Your task to perform on an android device: Go to accessibility settings Image 0: 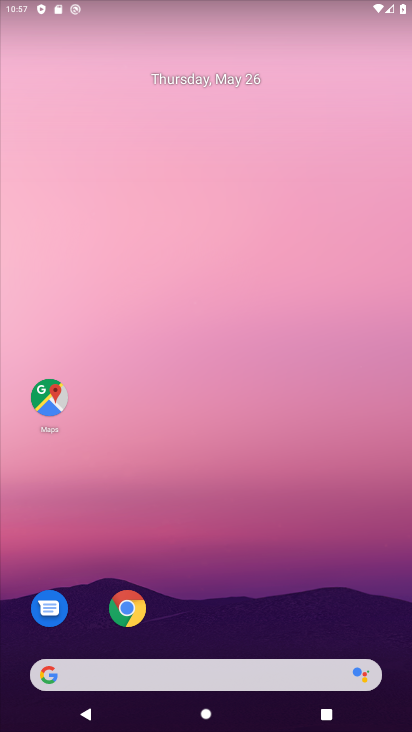
Step 0: drag from (245, 546) to (176, 183)
Your task to perform on an android device: Go to accessibility settings Image 1: 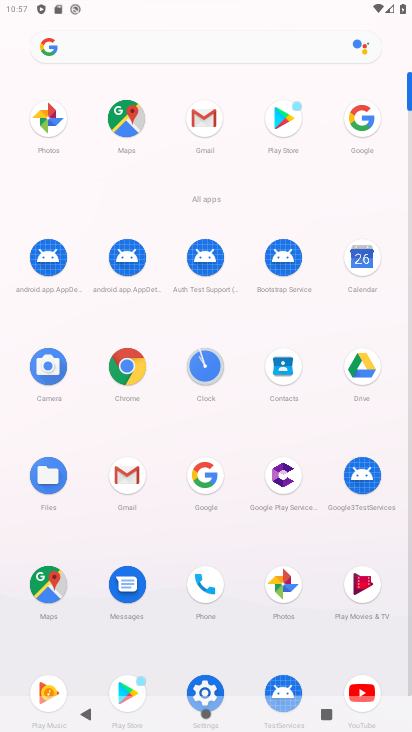
Step 1: click (205, 674)
Your task to perform on an android device: Go to accessibility settings Image 2: 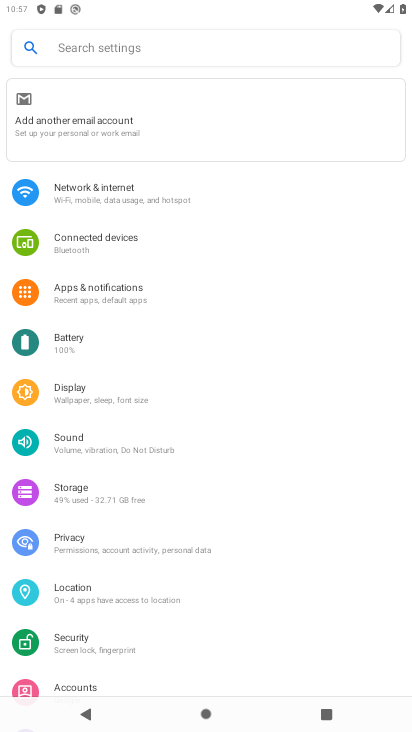
Step 2: drag from (201, 573) to (117, 169)
Your task to perform on an android device: Go to accessibility settings Image 3: 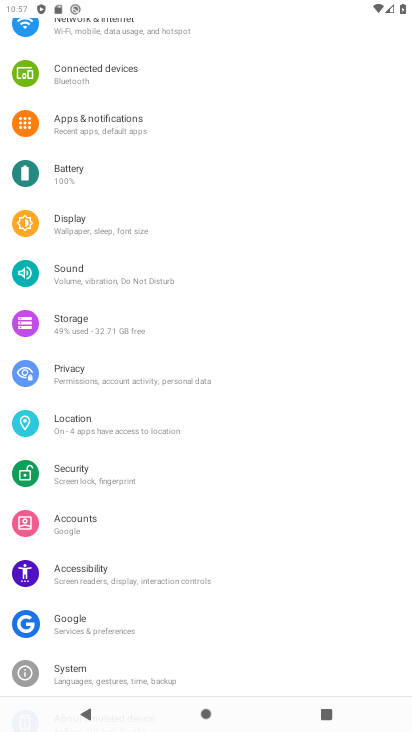
Step 3: click (72, 558)
Your task to perform on an android device: Go to accessibility settings Image 4: 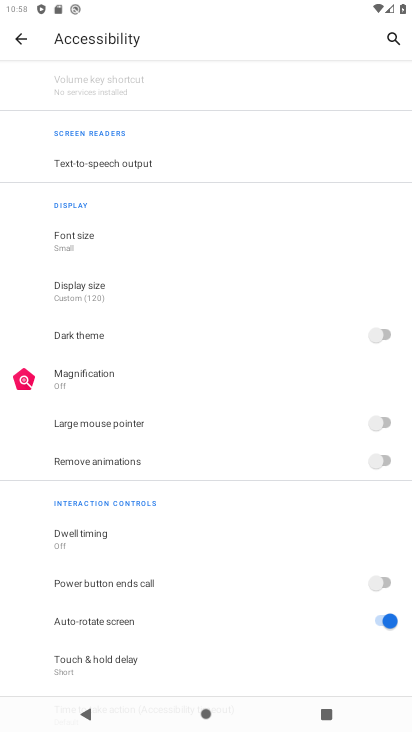
Step 4: task complete